Your task to perform on an android device: Open settings Image 0: 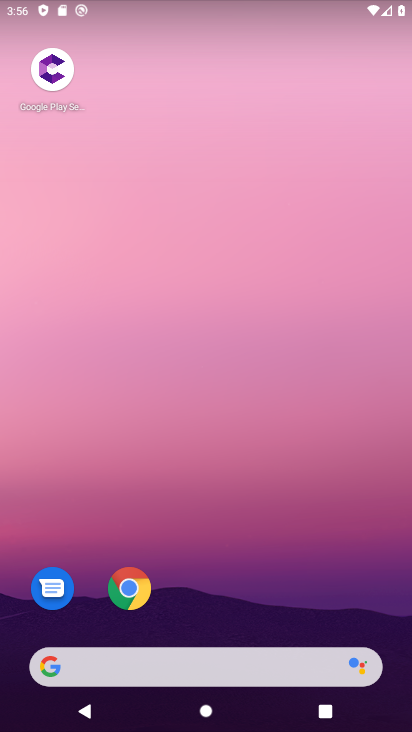
Step 0: drag from (237, 648) to (311, 147)
Your task to perform on an android device: Open settings Image 1: 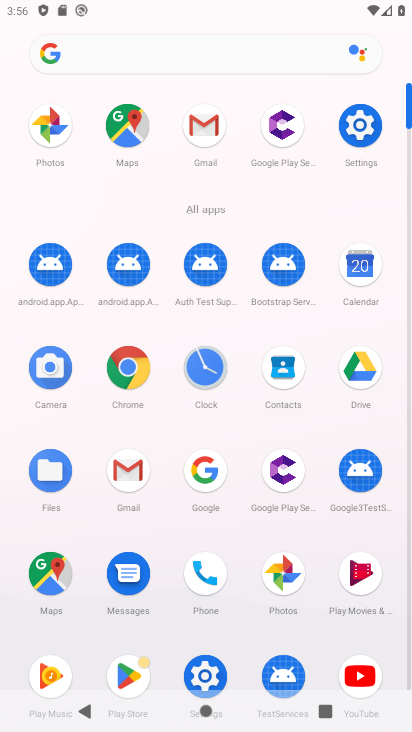
Step 1: click (197, 670)
Your task to perform on an android device: Open settings Image 2: 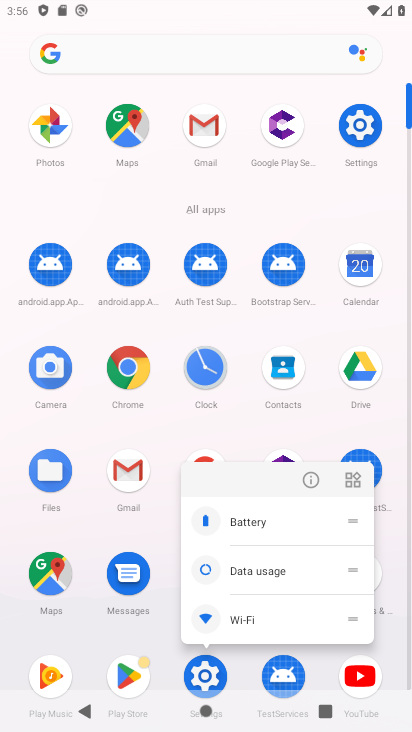
Step 2: click (197, 668)
Your task to perform on an android device: Open settings Image 3: 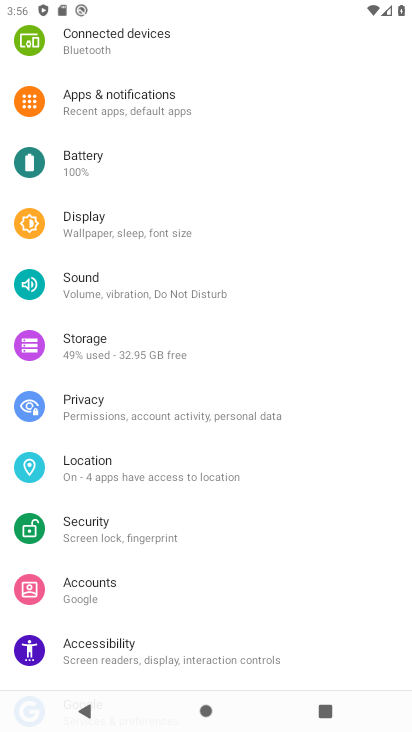
Step 3: task complete